Your task to perform on an android device: manage bookmarks in the chrome app Image 0: 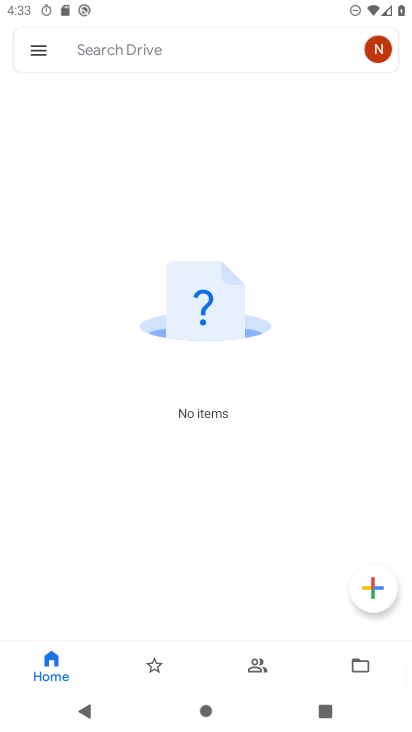
Step 0: press home button
Your task to perform on an android device: manage bookmarks in the chrome app Image 1: 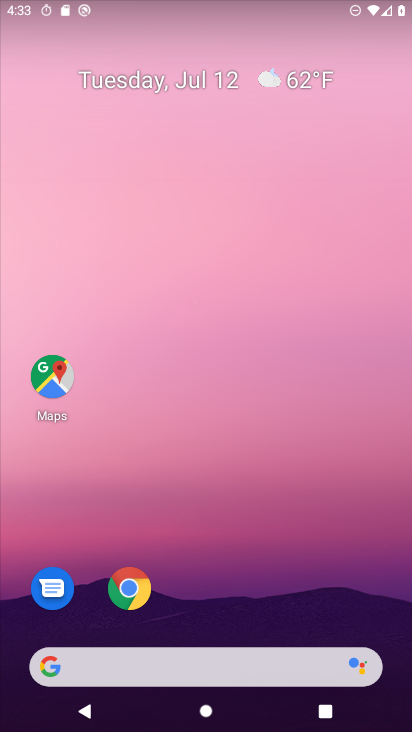
Step 1: click (131, 587)
Your task to perform on an android device: manage bookmarks in the chrome app Image 2: 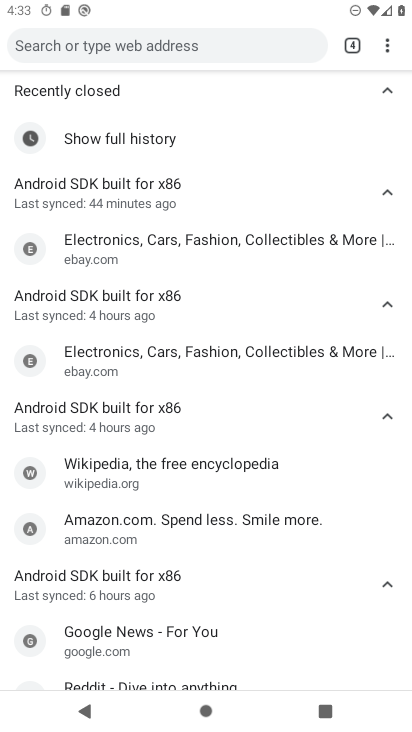
Step 2: drag from (238, 536) to (247, 446)
Your task to perform on an android device: manage bookmarks in the chrome app Image 3: 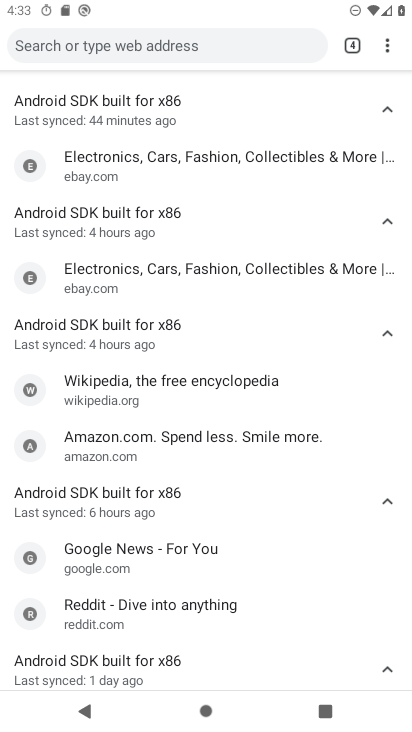
Step 3: click (388, 46)
Your task to perform on an android device: manage bookmarks in the chrome app Image 4: 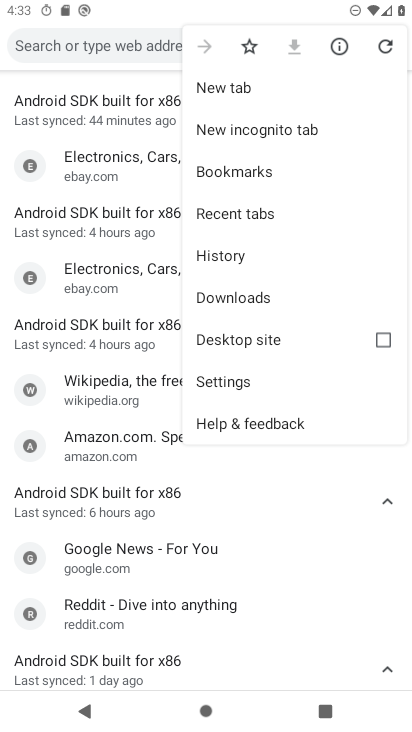
Step 4: click (255, 179)
Your task to perform on an android device: manage bookmarks in the chrome app Image 5: 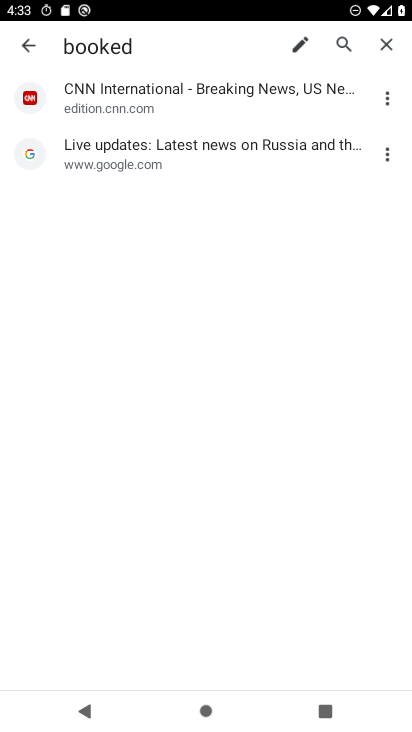
Step 5: click (384, 97)
Your task to perform on an android device: manage bookmarks in the chrome app Image 6: 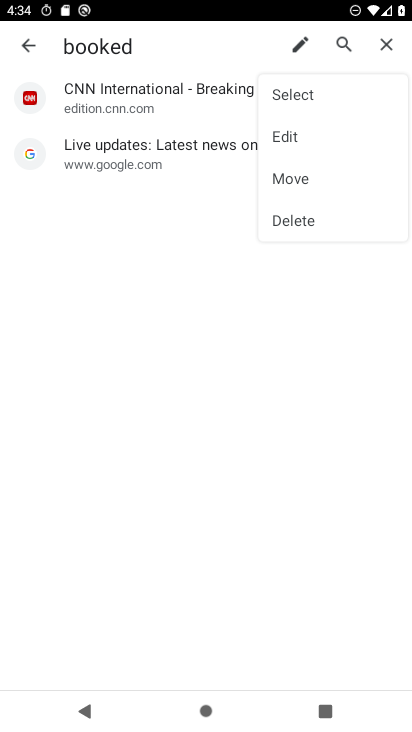
Step 6: click (310, 96)
Your task to perform on an android device: manage bookmarks in the chrome app Image 7: 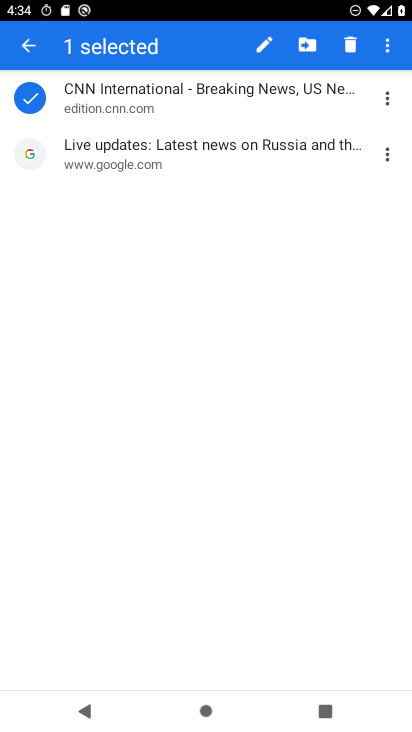
Step 7: click (245, 147)
Your task to perform on an android device: manage bookmarks in the chrome app Image 8: 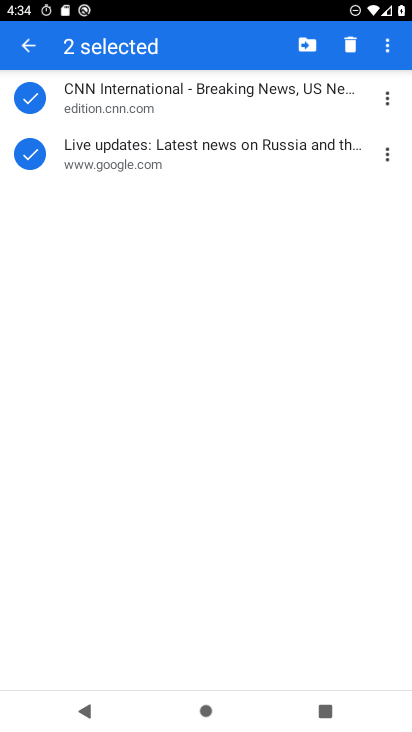
Step 8: click (309, 48)
Your task to perform on an android device: manage bookmarks in the chrome app Image 9: 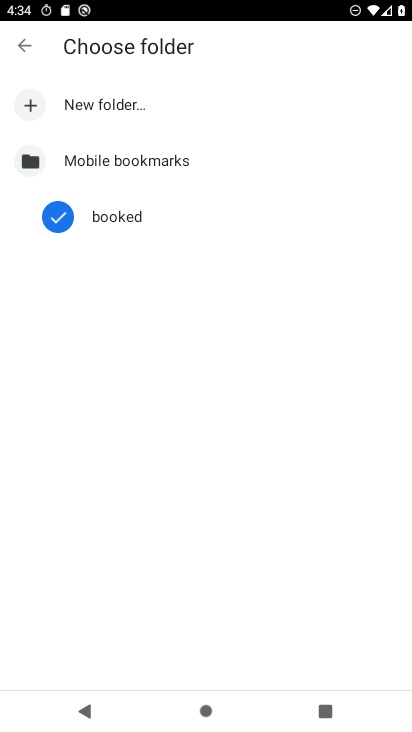
Step 9: click (120, 106)
Your task to perform on an android device: manage bookmarks in the chrome app Image 10: 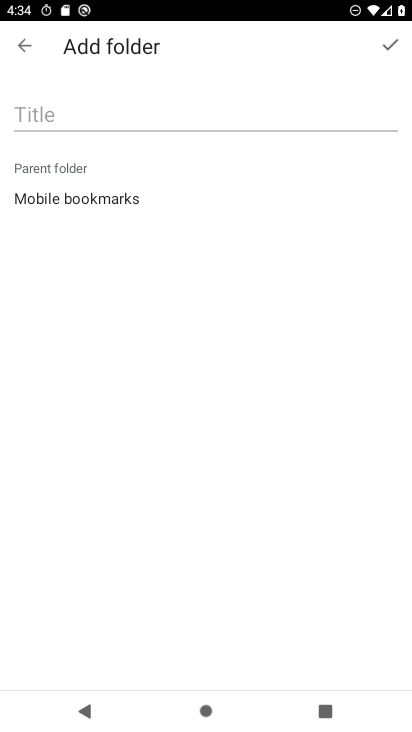
Step 10: click (178, 118)
Your task to perform on an android device: manage bookmarks in the chrome app Image 11: 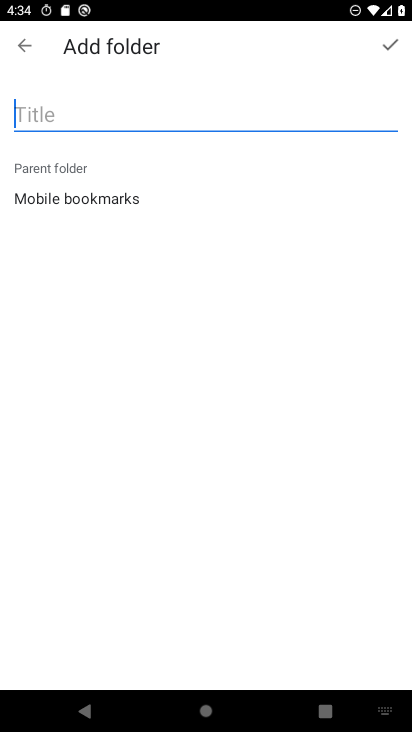
Step 11: type "frei"
Your task to perform on an android device: manage bookmarks in the chrome app Image 12: 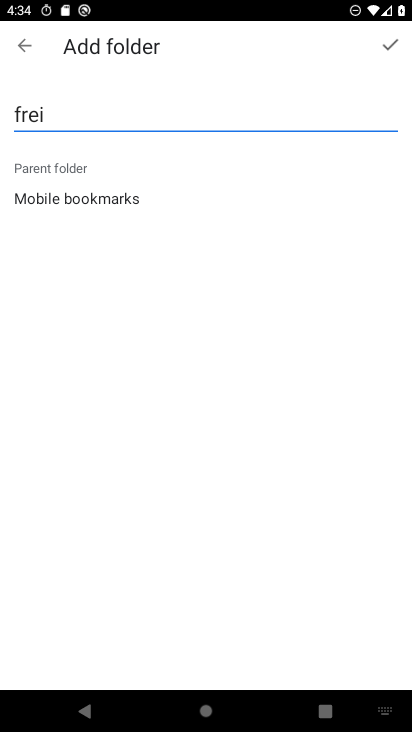
Step 12: click (388, 45)
Your task to perform on an android device: manage bookmarks in the chrome app Image 13: 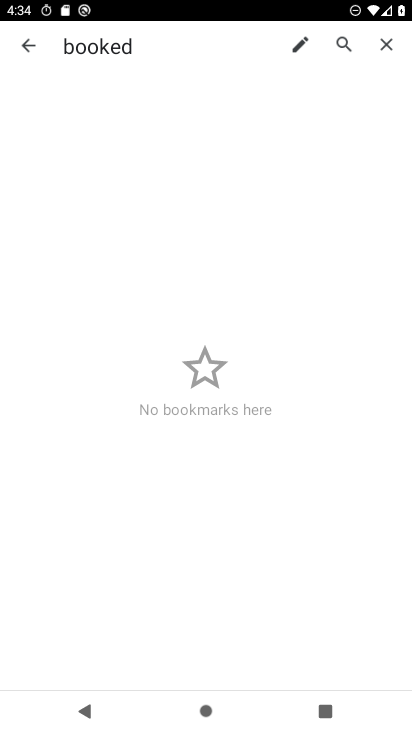
Step 13: task complete